Your task to perform on an android device: Open Chrome and go to settings Image 0: 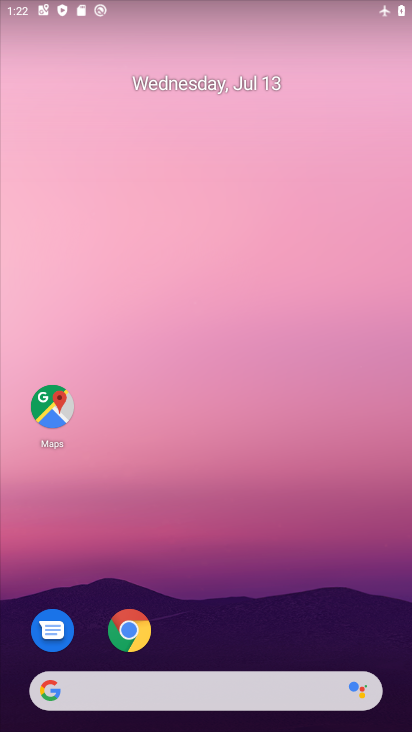
Step 0: drag from (343, 601) to (332, 26)
Your task to perform on an android device: Open Chrome and go to settings Image 1: 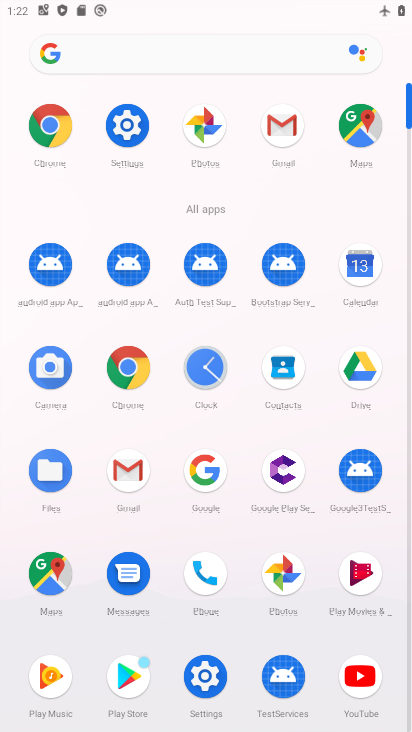
Step 1: click (136, 373)
Your task to perform on an android device: Open Chrome and go to settings Image 2: 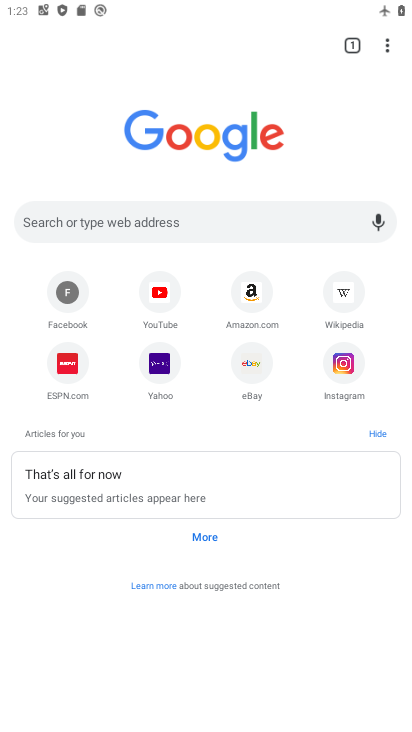
Step 2: click (383, 48)
Your task to perform on an android device: Open Chrome and go to settings Image 3: 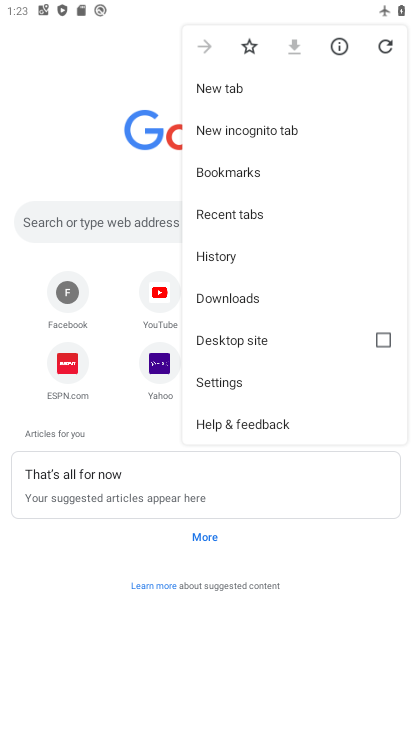
Step 3: click (277, 389)
Your task to perform on an android device: Open Chrome and go to settings Image 4: 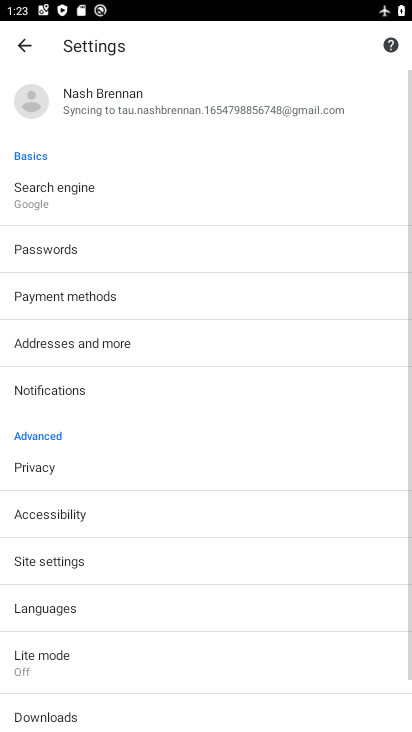
Step 4: task complete